Your task to perform on an android device: Search for Italian restaurants on Maps Image 0: 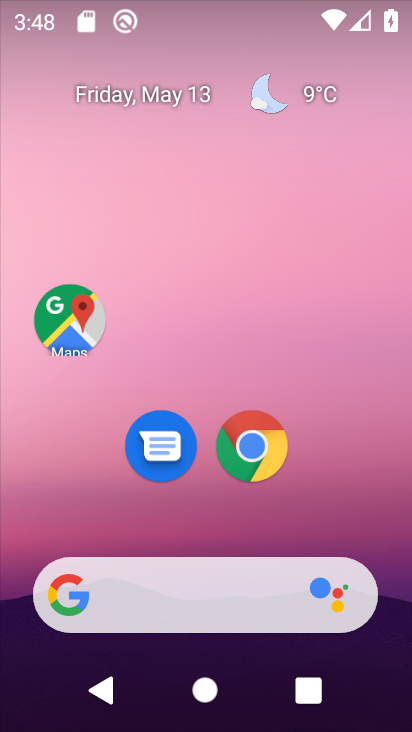
Step 0: click (93, 316)
Your task to perform on an android device: Search for Italian restaurants on Maps Image 1: 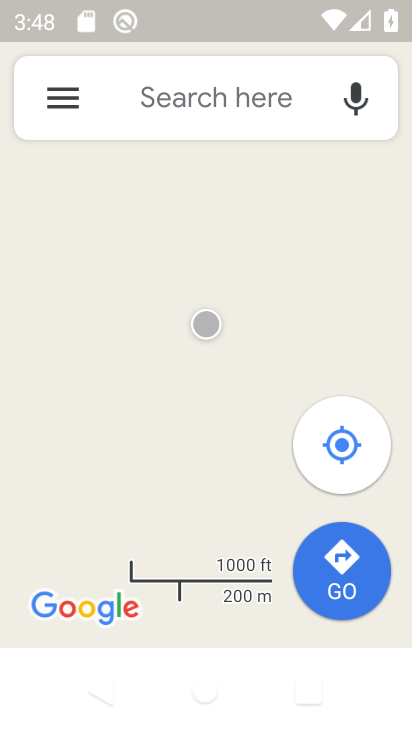
Step 1: click (184, 90)
Your task to perform on an android device: Search for Italian restaurants on Maps Image 2: 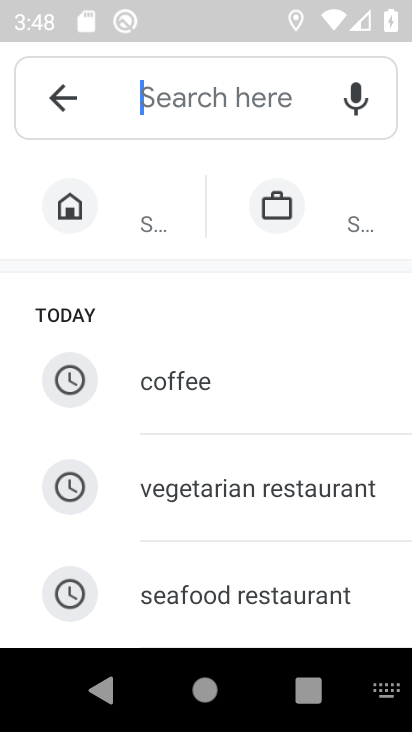
Step 2: type "italian restaurant"
Your task to perform on an android device: Search for Italian restaurants on Maps Image 3: 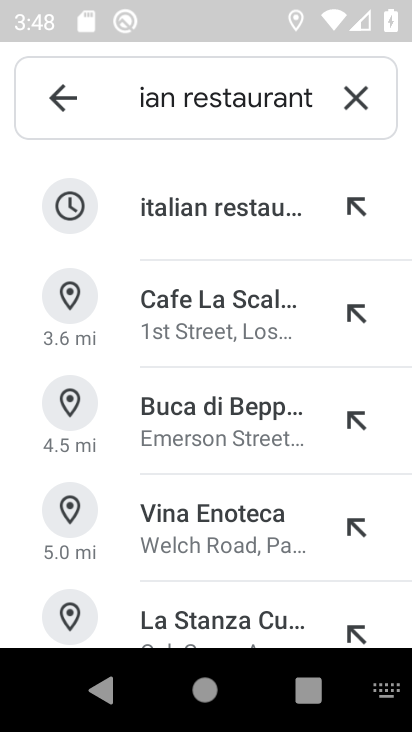
Step 3: click (154, 207)
Your task to perform on an android device: Search for Italian restaurants on Maps Image 4: 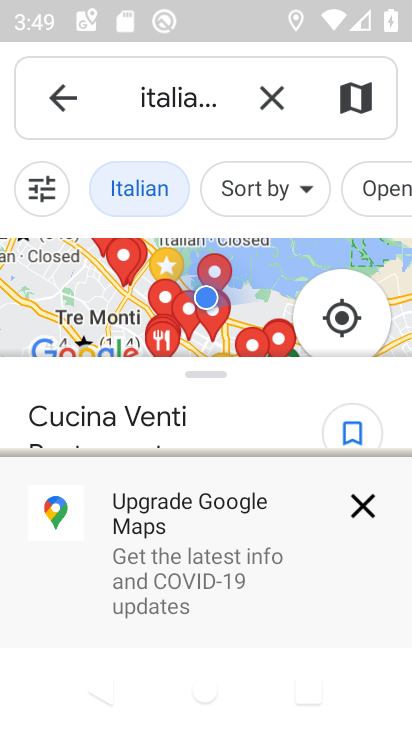
Step 4: task complete